Your task to perform on an android device: turn pop-ups off in chrome Image 0: 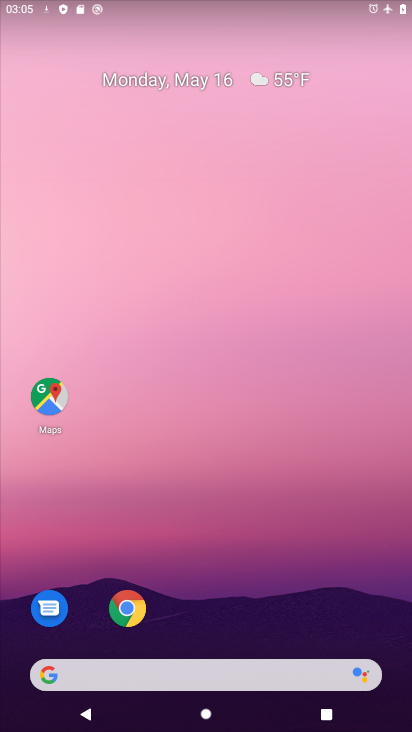
Step 0: click (122, 610)
Your task to perform on an android device: turn pop-ups off in chrome Image 1: 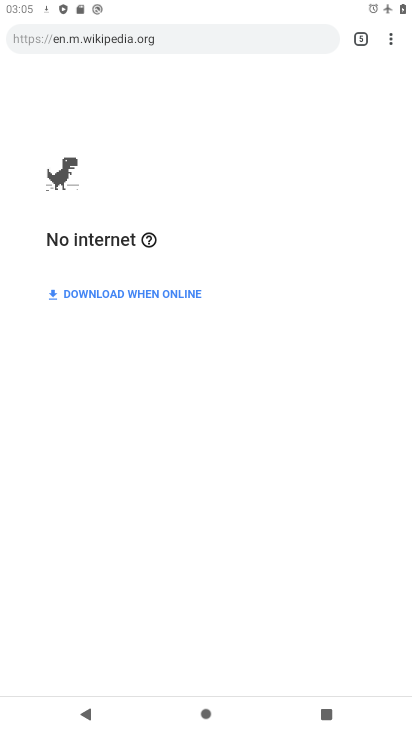
Step 1: click (394, 42)
Your task to perform on an android device: turn pop-ups off in chrome Image 2: 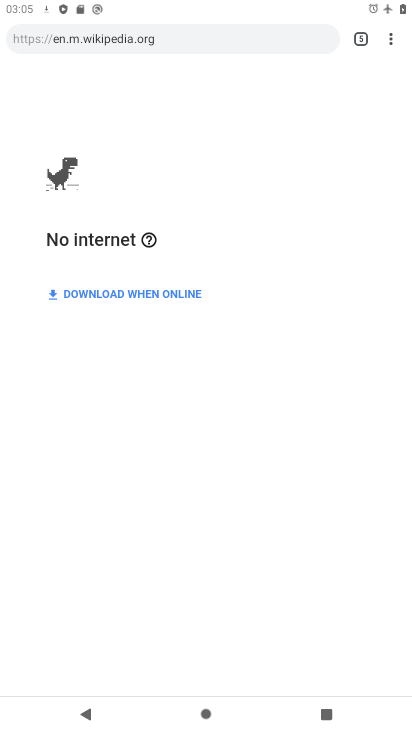
Step 2: click (394, 42)
Your task to perform on an android device: turn pop-ups off in chrome Image 3: 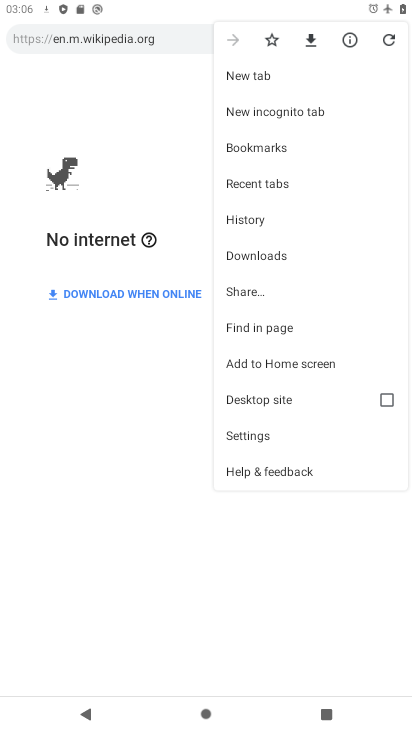
Step 3: click (264, 441)
Your task to perform on an android device: turn pop-ups off in chrome Image 4: 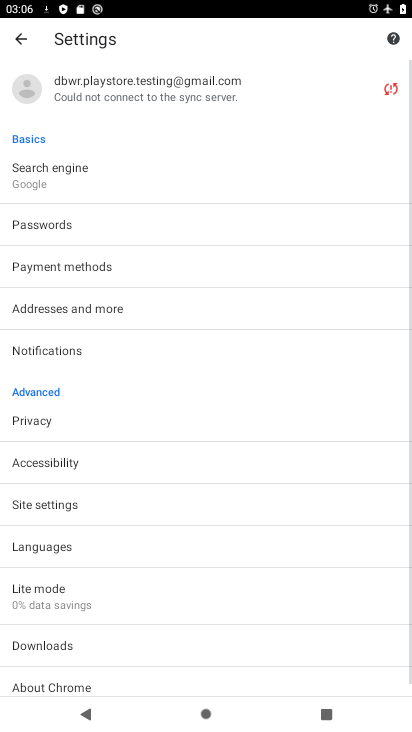
Step 4: drag from (257, 632) to (262, 421)
Your task to perform on an android device: turn pop-ups off in chrome Image 5: 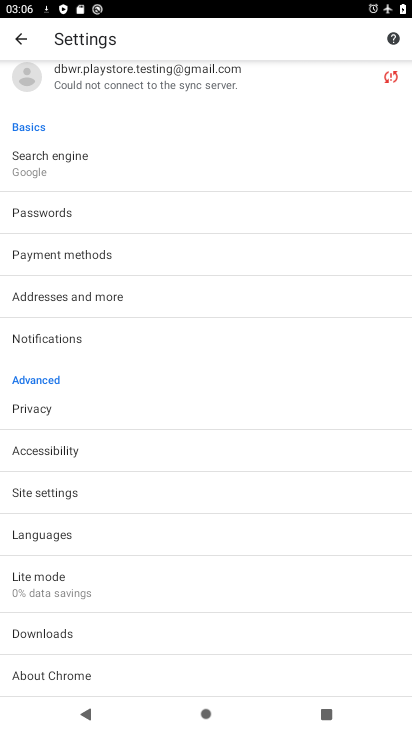
Step 5: drag from (254, 577) to (239, 410)
Your task to perform on an android device: turn pop-ups off in chrome Image 6: 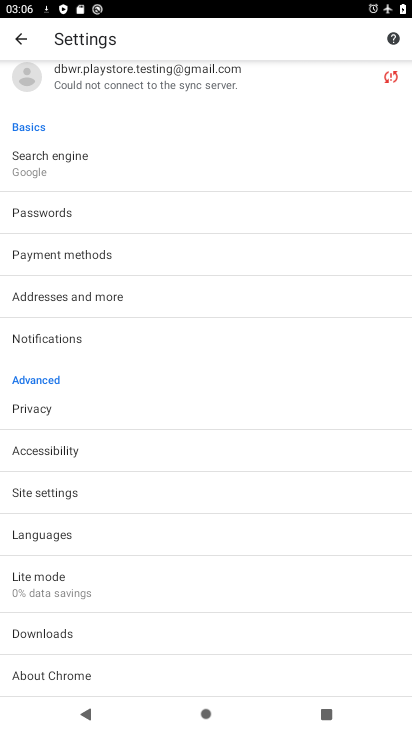
Step 6: click (92, 499)
Your task to perform on an android device: turn pop-ups off in chrome Image 7: 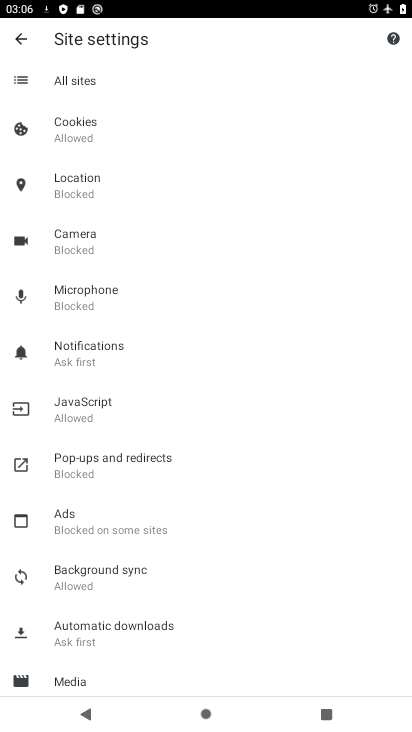
Step 7: click (121, 453)
Your task to perform on an android device: turn pop-ups off in chrome Image 8: 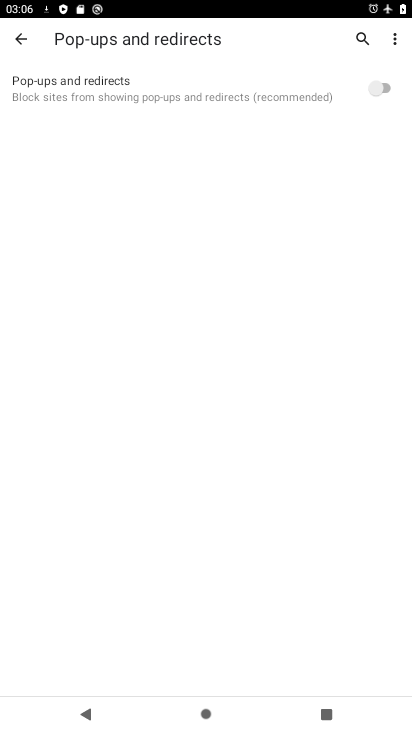
Step 8: task complete